Your task to perform on an android device: Go to ESPN.com Image 0: 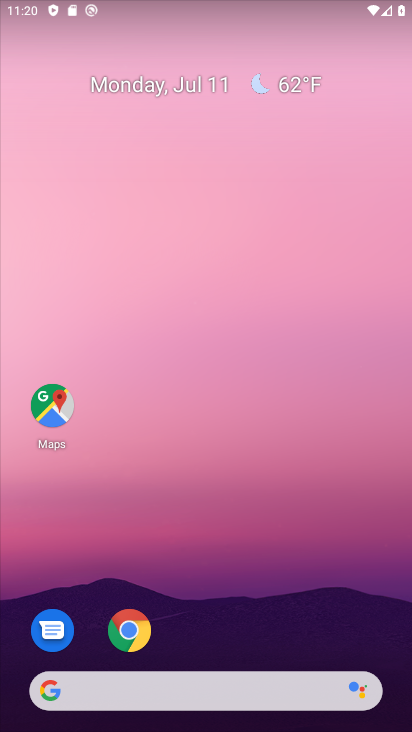
Step 0: drag from (284, 700) to (365, 46)
Your task to perform on an android device: Go to ESPN.com Image 1: 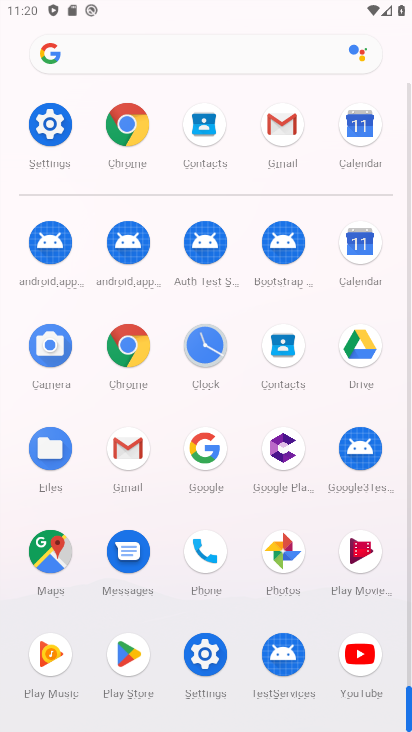
Step 1: click (135, 350)
Your task to perform on an android device: Go to ESPN.com Image 2: 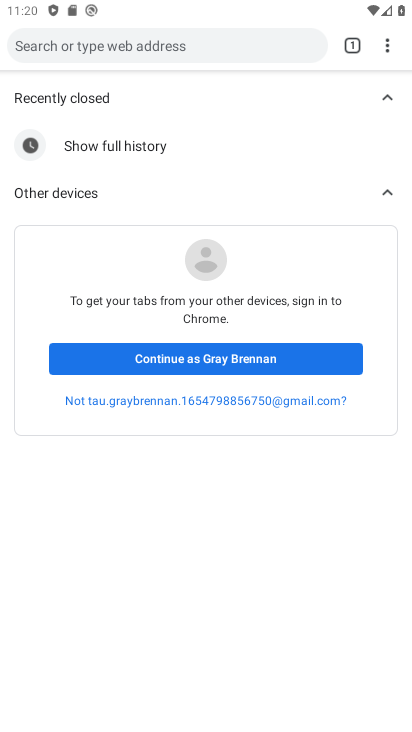
Step 2: click (192, 44)
Your task to perform on an android device: Go to ESPN.com Image 3: 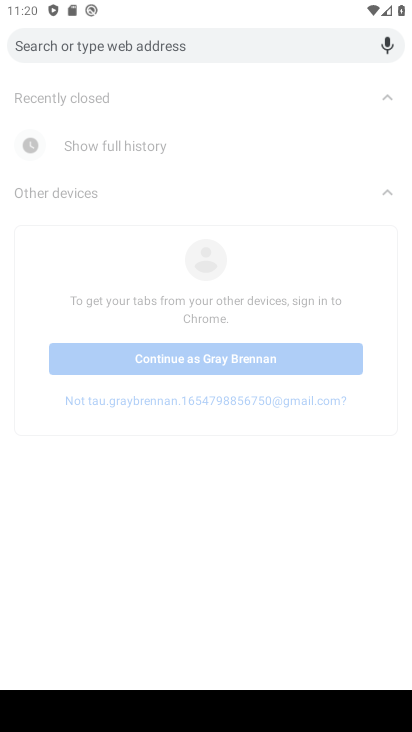
Step 3: type "espn.com"
Your task to perform on an android device: Go to ESPN.com Image 4: 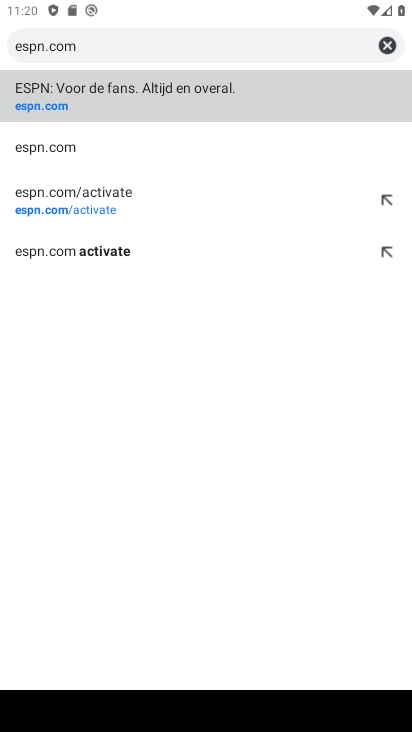
Step 4: click (63, 88)
Your task to perform on an android device: Go to ESPN.com Image 5: 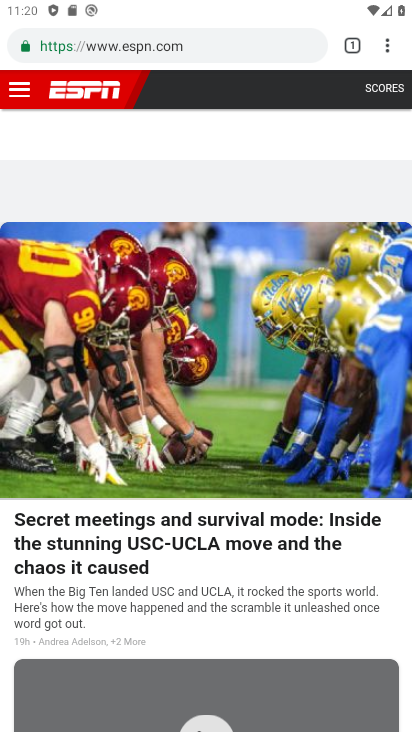
Step 5: task complete